Your task to perform on an android device: change notification settings in the gmail app Image 0: 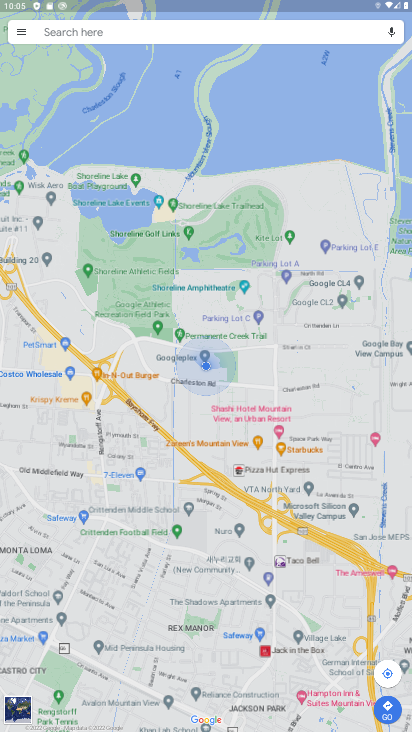
Step 0: press home button
Your task to perform on an android device: change notification settings in the gmail app Image 1: 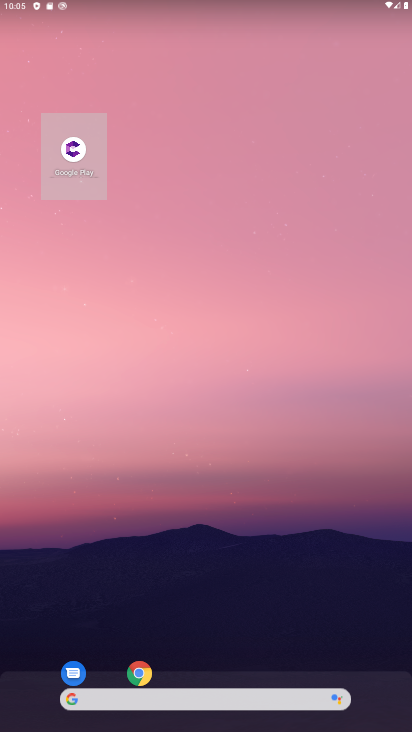
Step 1: drag from (213, 571) to (212, 395)
Your task to perform on an android device: change notification settings in the gmail app Image 2: 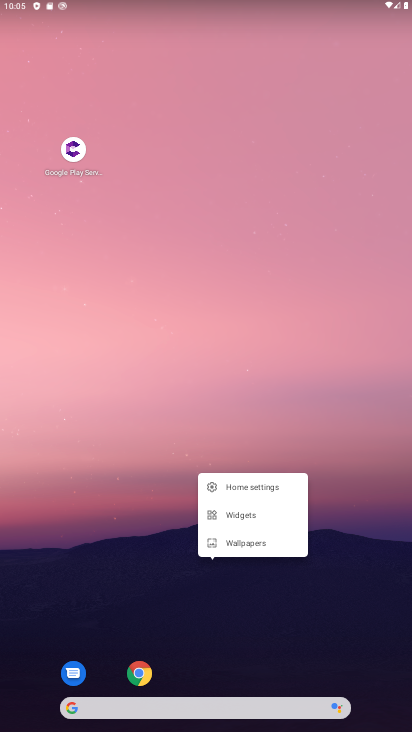
Step 2: click (333, 655)
Your task to perform on an android device: change notification settings in the gmail app Image 3: 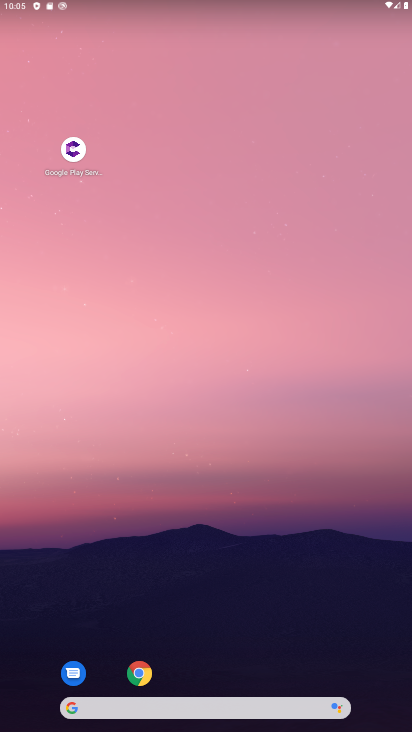
Step 3: drag from (333, 655) to (297, 263)
Your task to perform on an android device: change notification settings in the gmail app Image 4: 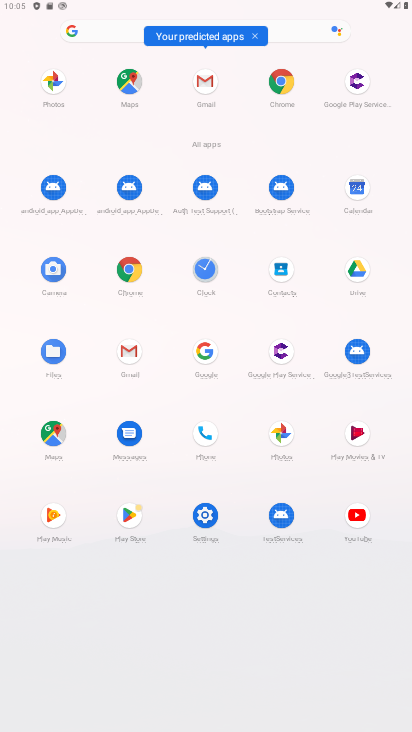
Step 4: click (135, 354)
Your task to perform on an android device: change notification settings in the gmail app Image 5: 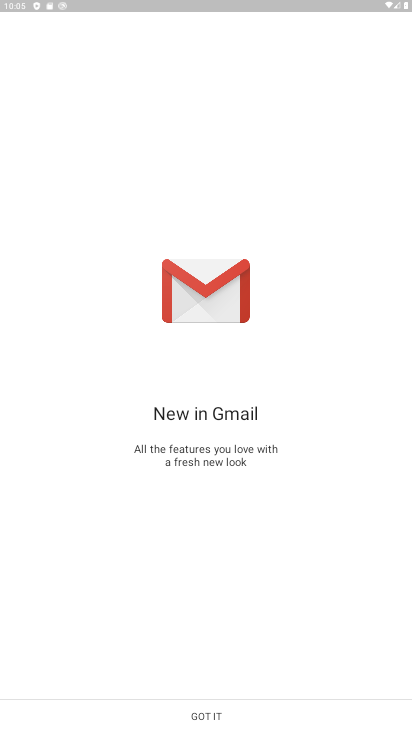
Step 5: click (208, 714)
Your task to perform on an android device: change notification settings in the gmail app Image 6: 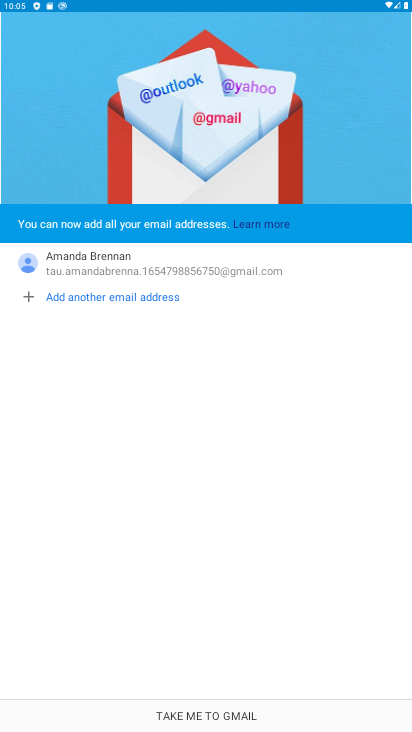
Step 6: click (208, 714)
Your task to perform on an android device: change notification settings in the gmail app Image 7: 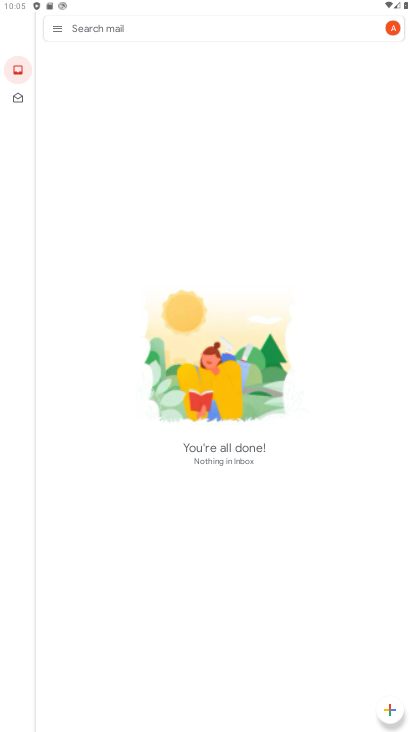
Step 7: click (55, 22)
Your task to perform on an android device: change notification settings in the gmail app Image 8: 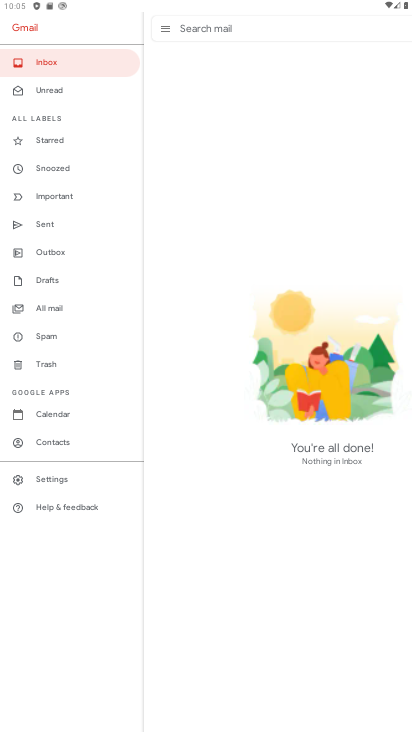
Step 8: click (59, 479)
Your task to perform on an android device: change notification settings in the gmail app Image 9: 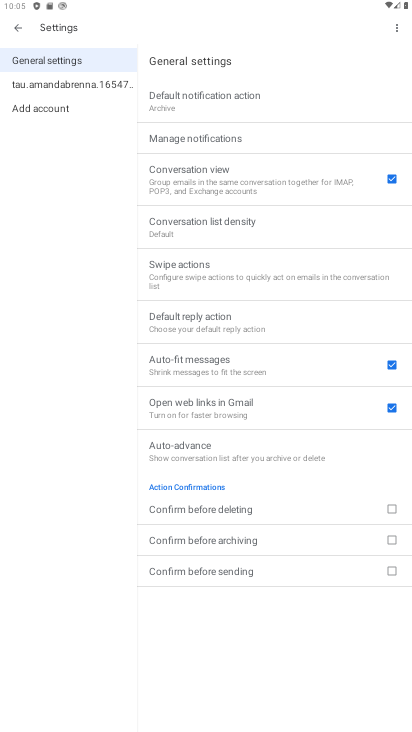
Step 9: task complete